Your task to perform on an android device: Open Google Maps Image 0: 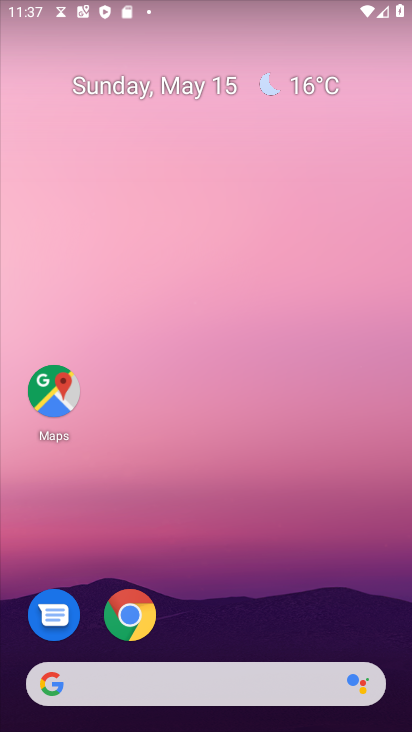
Step 0: drag from (267, 616) to (256, 26)
Your task to perform on an android device: Open Google Maps Image 1: 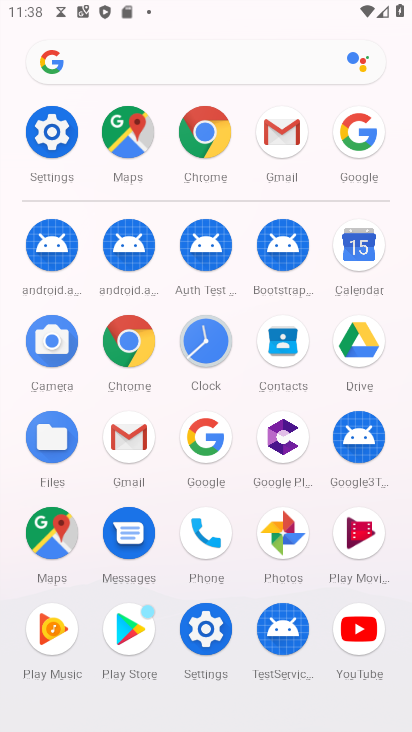
Step 1: click (36, 502)
Your task to perform on an android device: Open Google Maps Image 2: 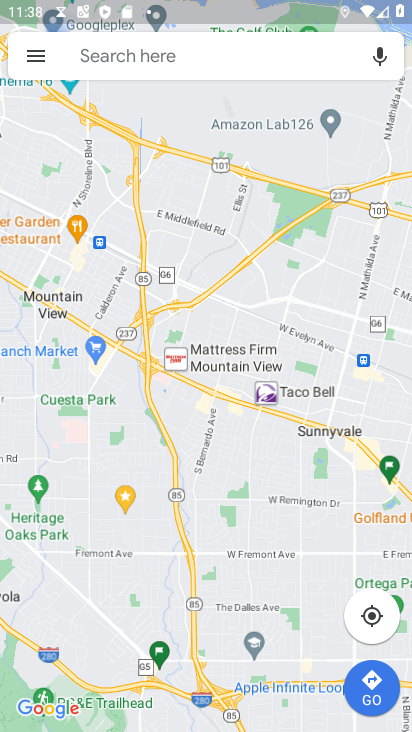
Step 2: click (370, 686)
Your task to perform on an android device: Open Google Maps Image 3: 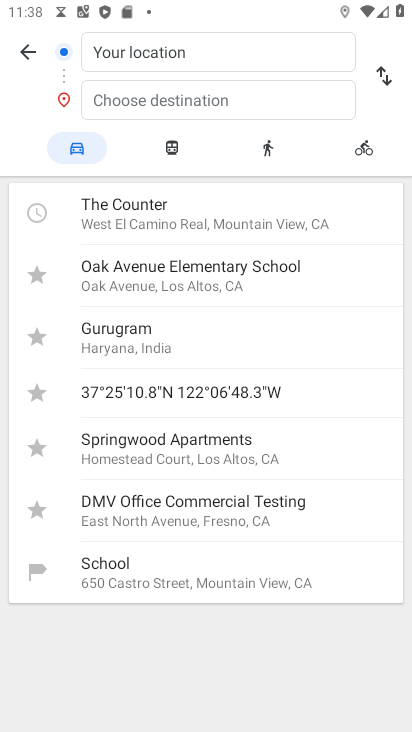
Step 3: press back button
Your task to perform on an android device: Open Google Maps Image 4: 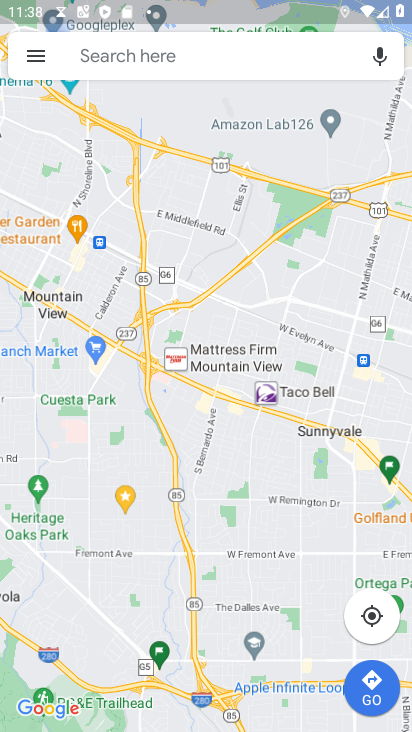
Step 4: click (370, 603)
Your task to perform on an android device: Open Google Maps Image 5: 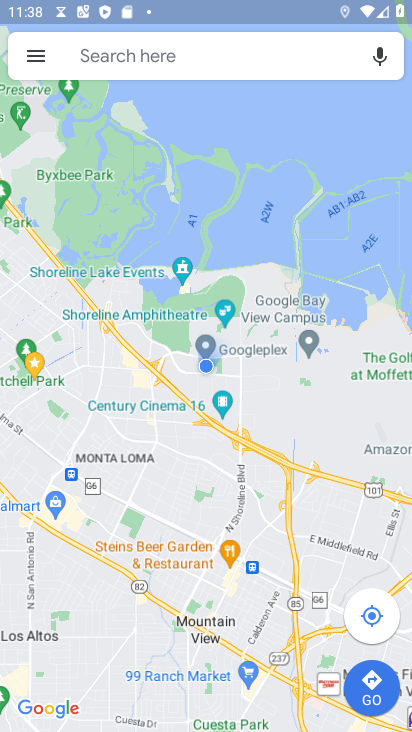
Step 5: click (365, 616)
Your task to perform on an android device: Open Google Maps Image 6: 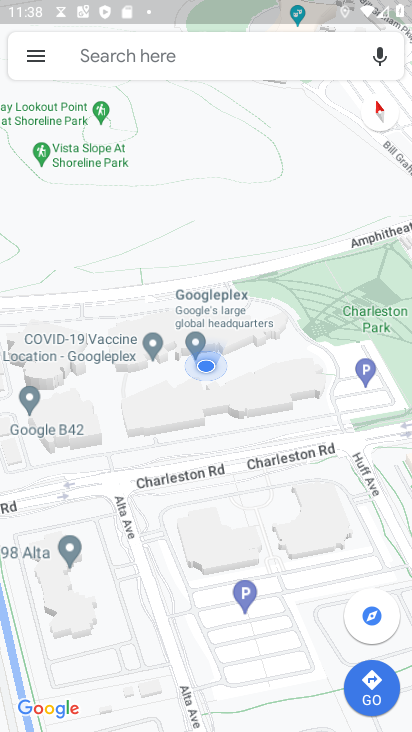
Step 6: task complete